Your task to perform on an android device: Go to Amazon Image 0: 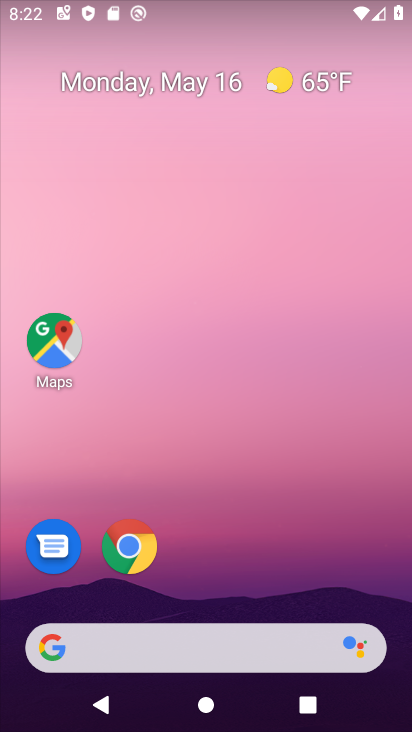
Step 0: click (124, 529)
Your task to perform on an android device: Go to Amazon Image 1: 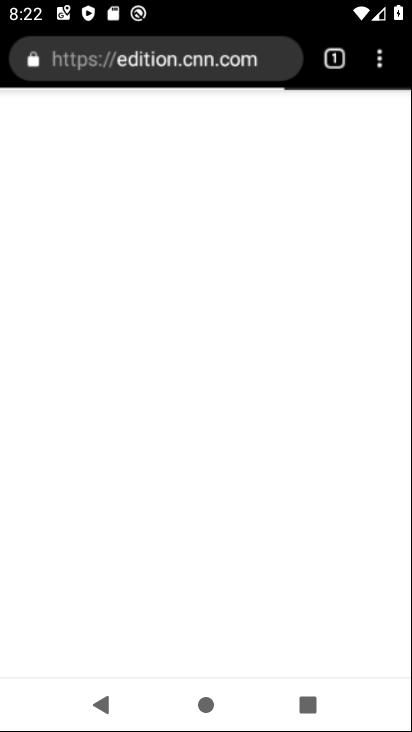
Step 1: click (124, 529)
Your task to perform on an android device: Go to Amazon Image 2: 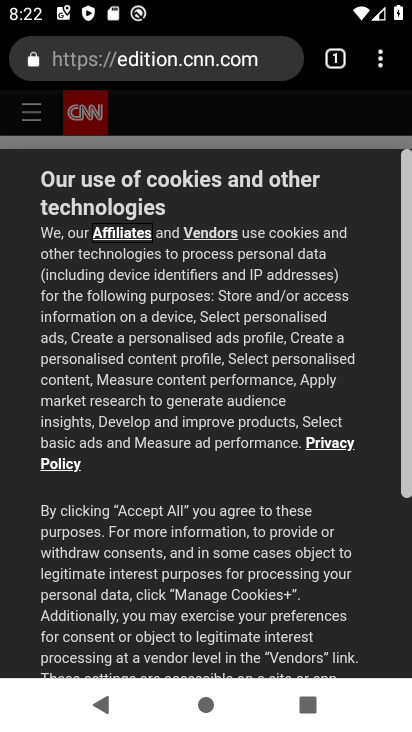
Step 2: click (162, 59)
Your task to perform on an android device: Go to Amazon Image 3: 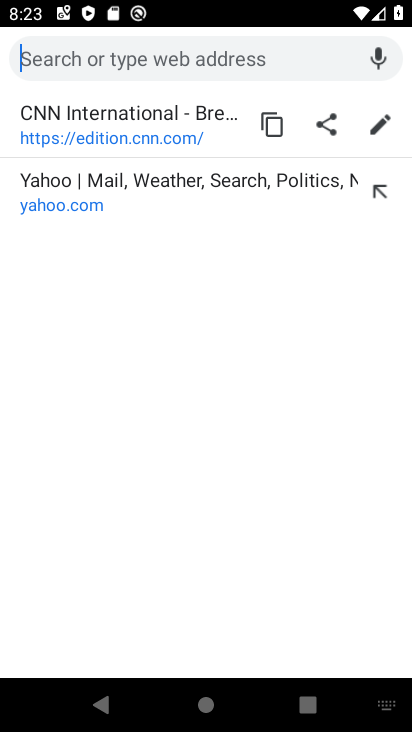
Step 3: type "amazon"
Your task to perform on an android device: Go to Amazon Image 4: 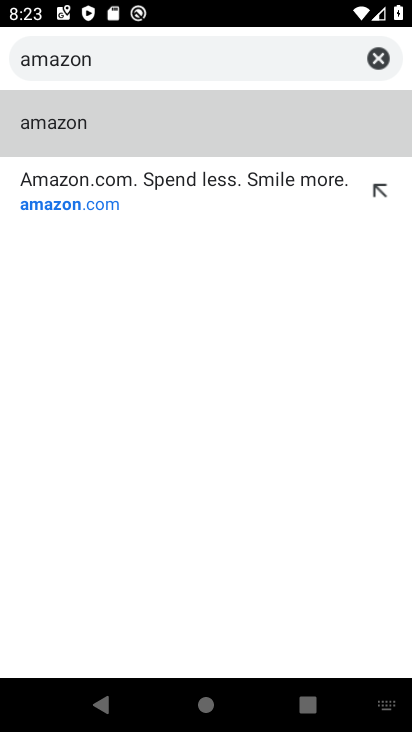
Step 4: click (135, 175)
Your task to perform on an android device: Go to Amazon Image 5: 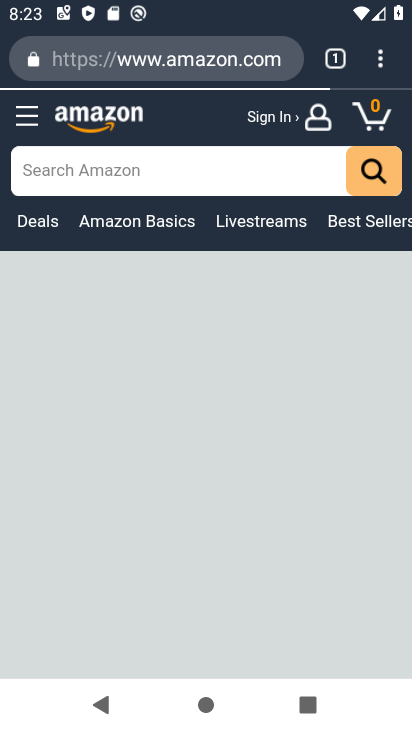
Step 5: task complete